Your task to perform on an android device: read, delete, or share a saved page in the chrome app Image 0: 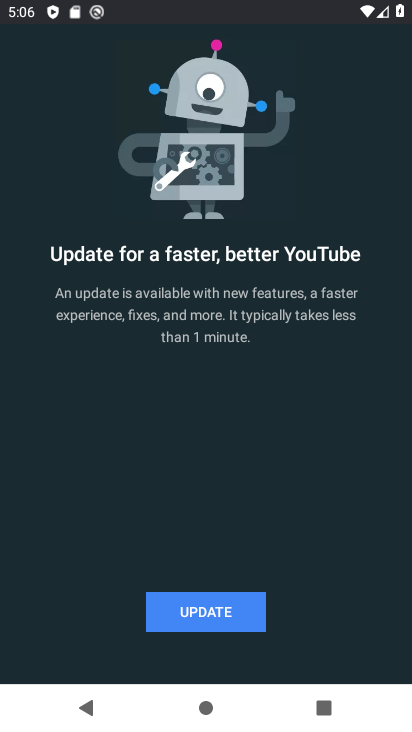
Step 0: press home button
Your task to perform on an android device: read, delete, or share a saved page in the chrome app Image 1: 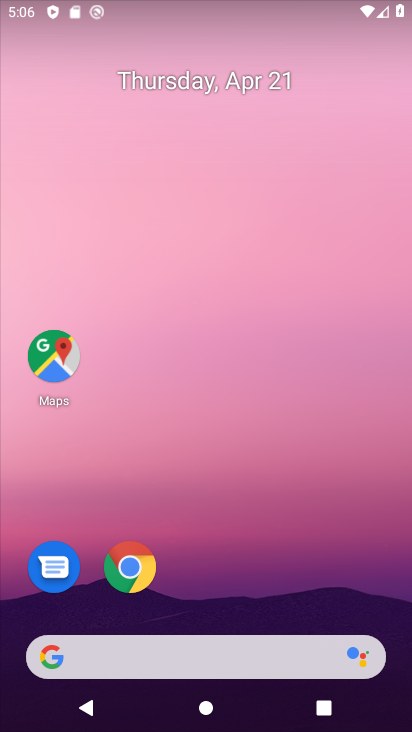
Step 1: drag from (218, 443) to (243, 58)
Your task to perform on an android device: read, delete, or share a saved page in the chrome app Image 2: 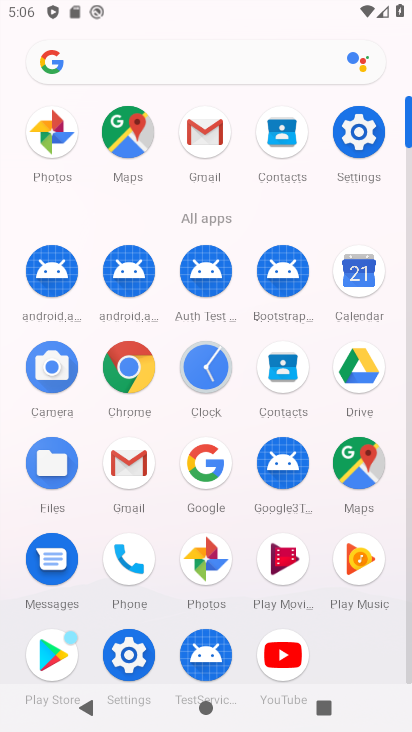
Step 2: click (138, 393)
Your task to perform on an android device: read, delete, or share a saved page in the chrome app Image 3: 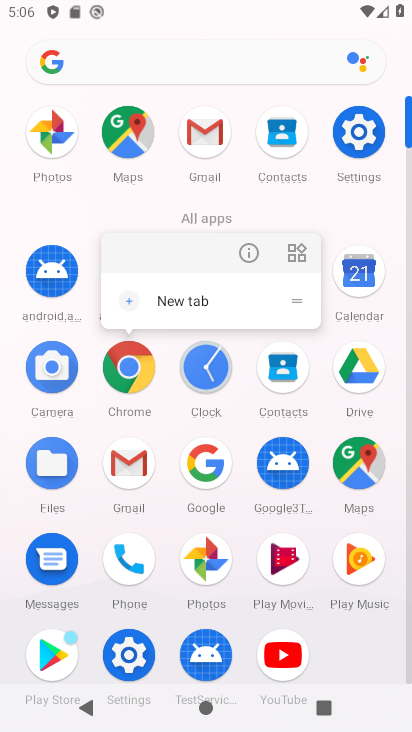
Step 3: click (123, 356)
Your task to perform on an android device: read, delete, or share a saved page in the chrome app Image 4: 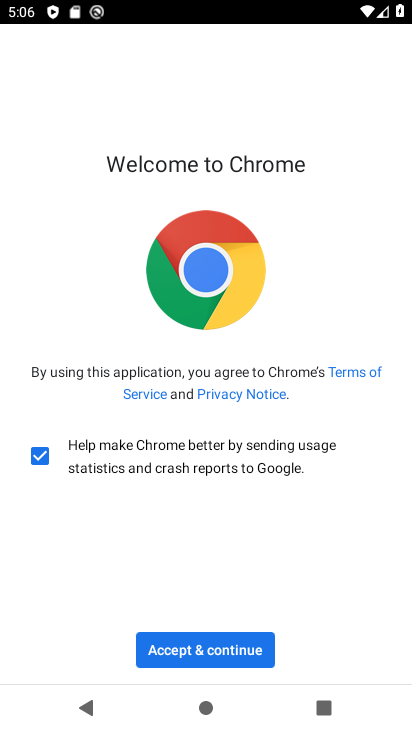
Step 4: click (172, 650)
Your task to perform on an android device: read, delete, or share a saved page in the chrome app Image 5: 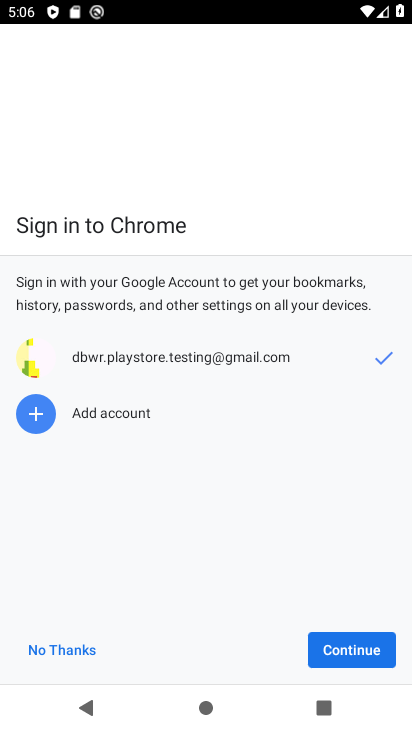
Step 5: click (364, 653)
Your task to perform on an android device: read, delete, or share a saved page in the chrome app Image 6: 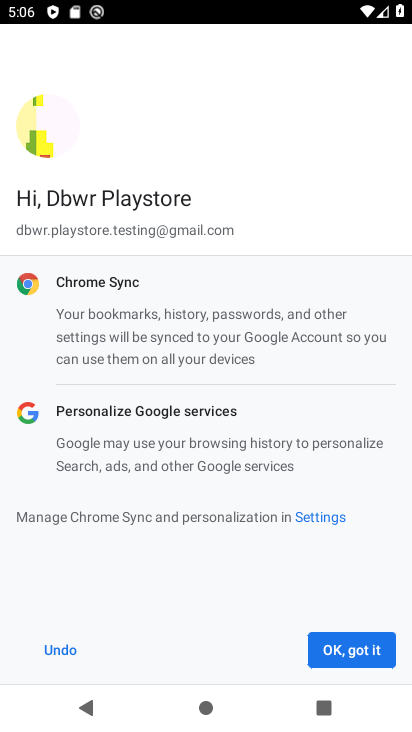
Step 6: click (348, 645)
Your task to perform on an android device: read, delete, or share a saved page in the chrome app Image 7: 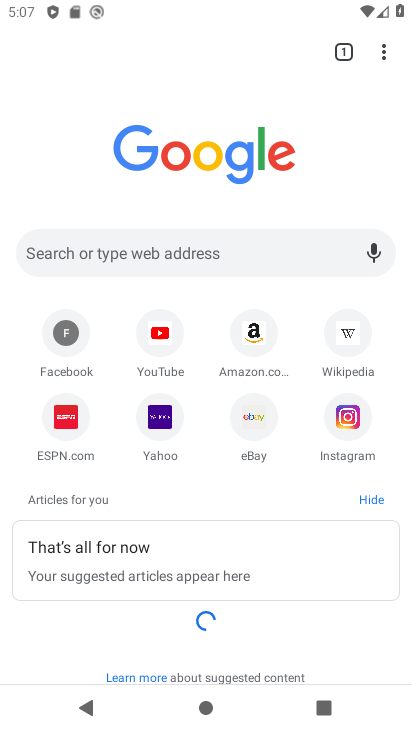
Step 7: click (390, 55)
Your task to perform on an android device: read, delete, or share a saved page in the chrome app Image 8: 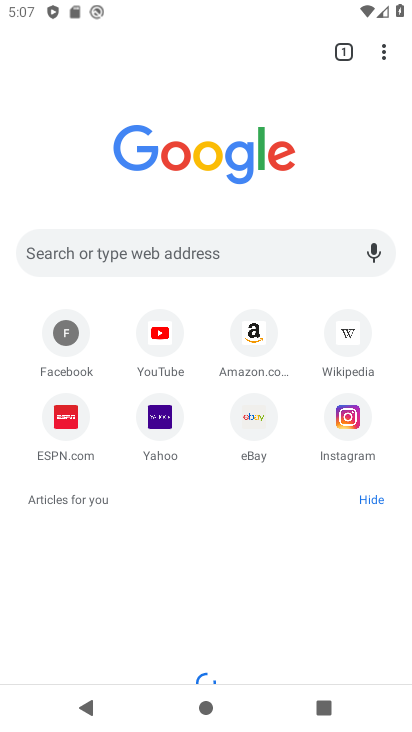
Step 8: click (382, 60)
Your task to perform on an android device: read, delete, or share a saved page in the chrome app Image 9: 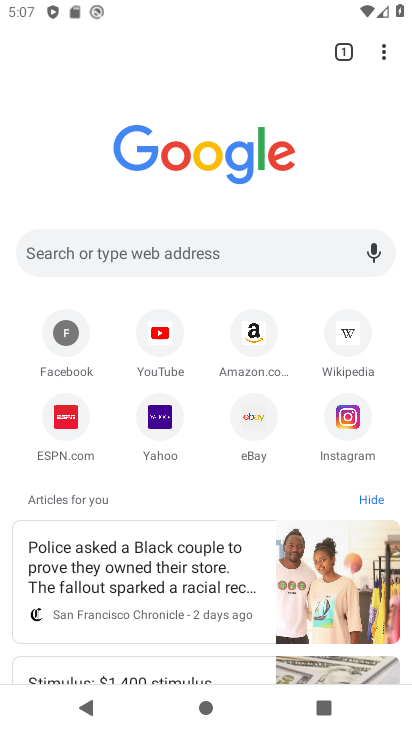
Step 9: click (381, 57)
Your task to perform on an android device: read, delete, or share a saved page in the chrome app Image 10: 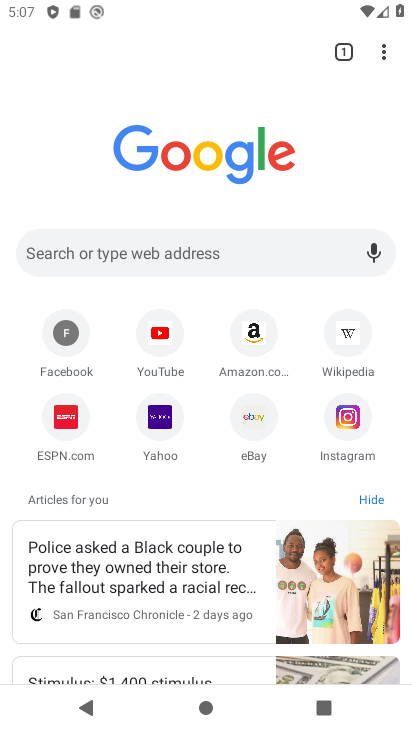
Step 10: click (386, 62)
Your task to perform on an android device: read, delete, or share a saved page in the chrome app Image 11: 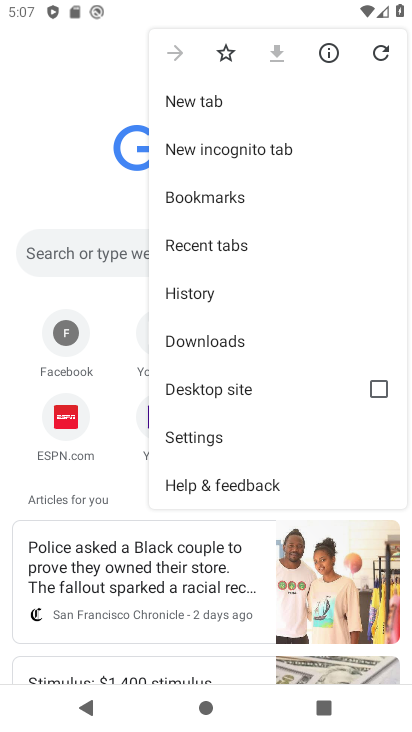
Step 11: click (205, 342)
Your task to perform on an android device: read, delete, or share a saved page in the chrome app Image 12: 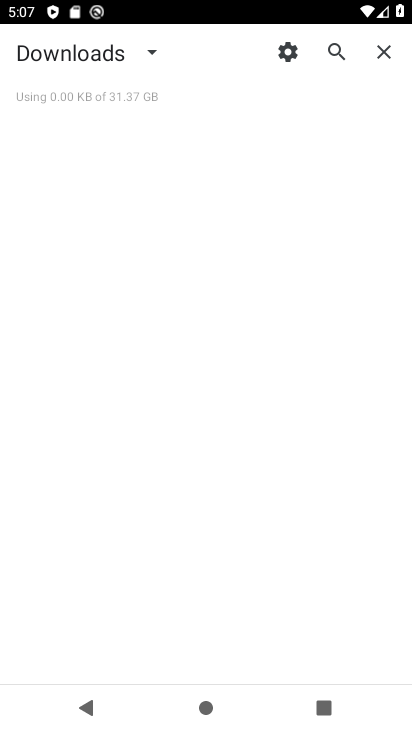
Step 12: task complete